Your task to perform on an android device: What's on the menu at Taco Bell? Image 0: 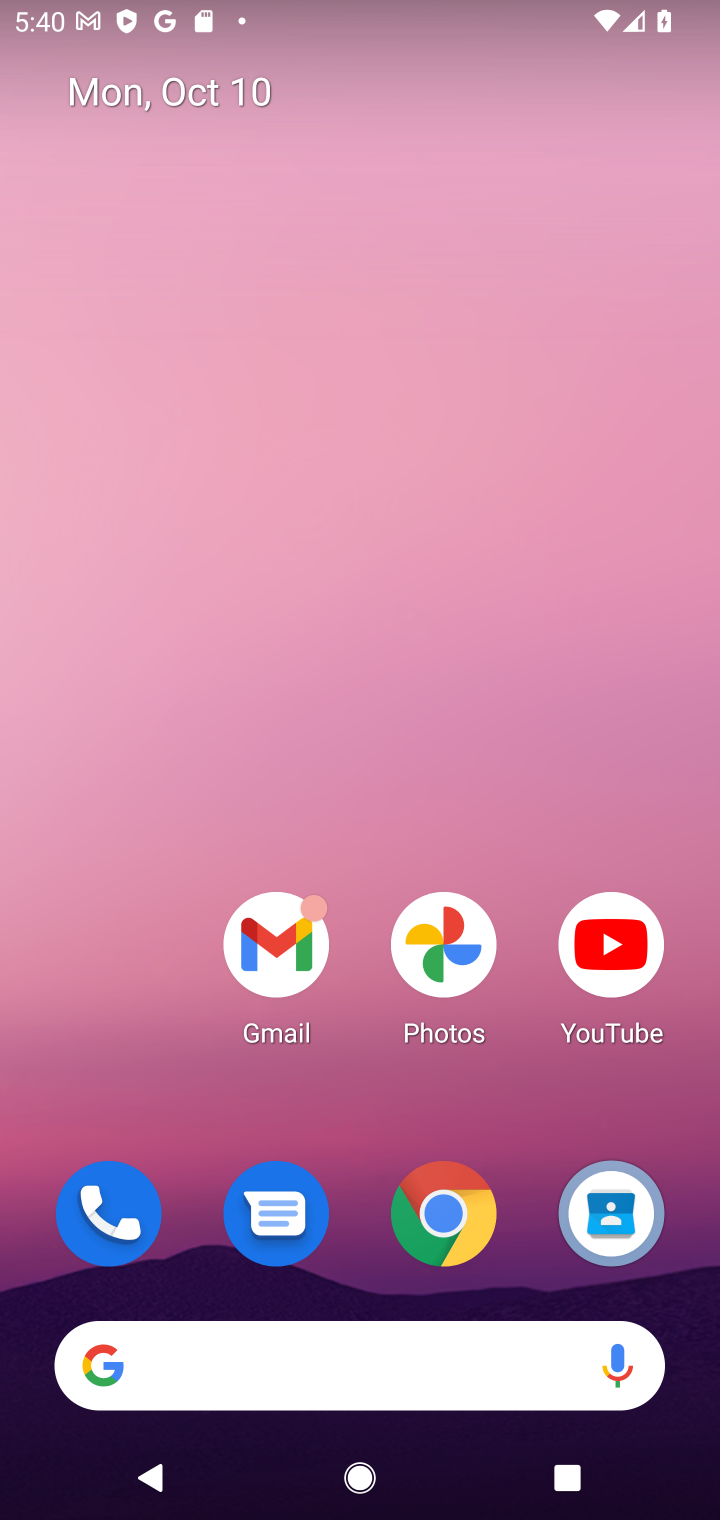
Step 0: click (283, 1338)
Your task to perform on an android device: What's on the menu at Taco Bell? Image 1: 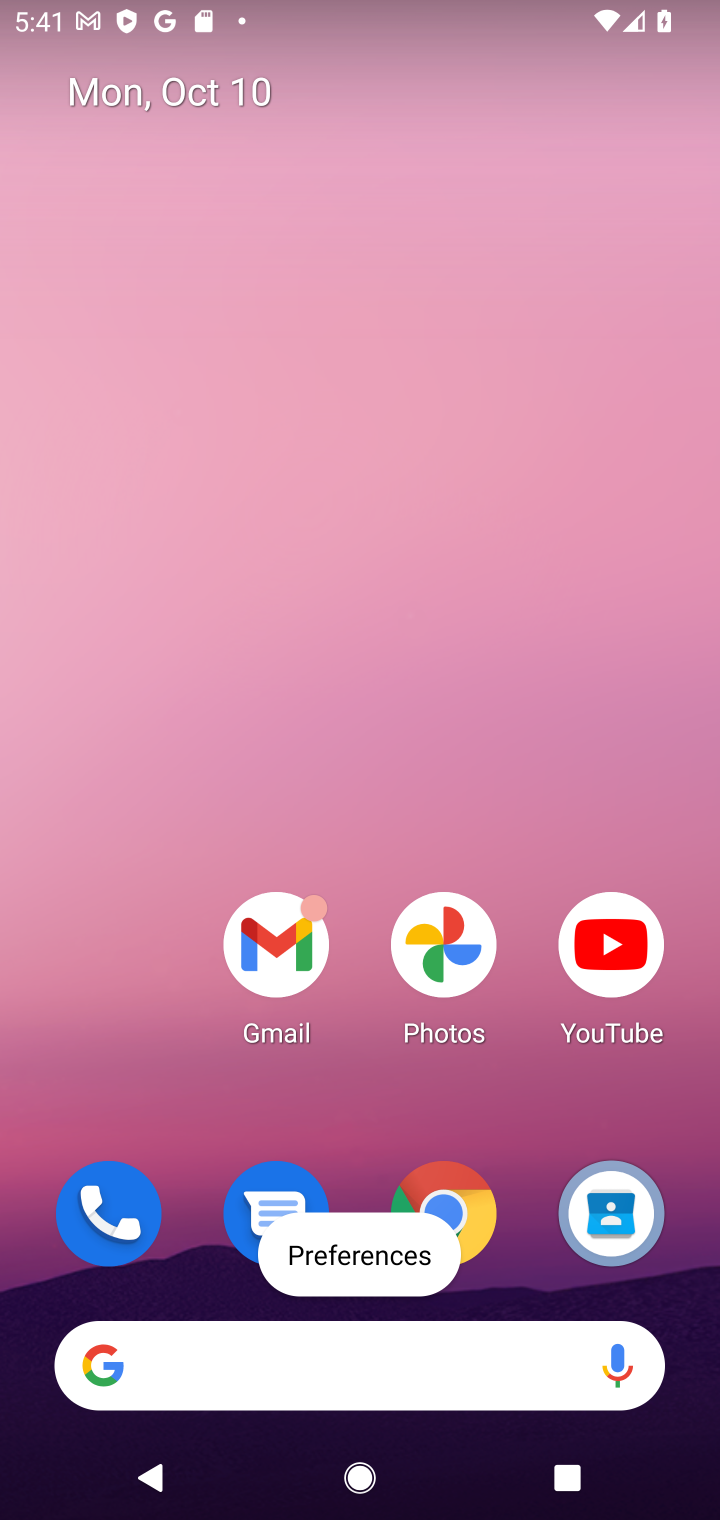
Step 1: click (373, 1394)
Your task to perform on an android device: What's on the menu at Taco Bell? Image 2: 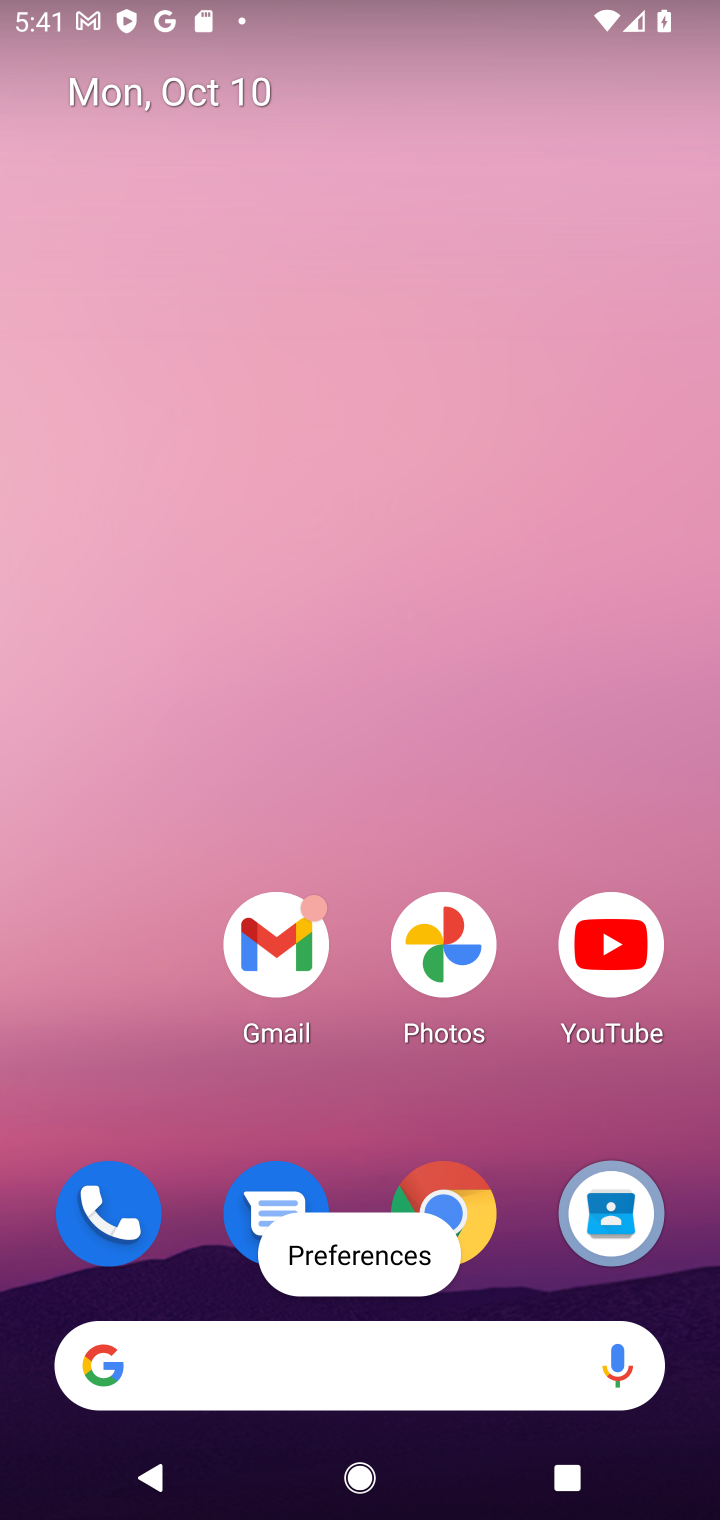
Step 2: click (373, 1341)
Your task to perform on an android device: What's on the menu at Taco Bell? Image 3: 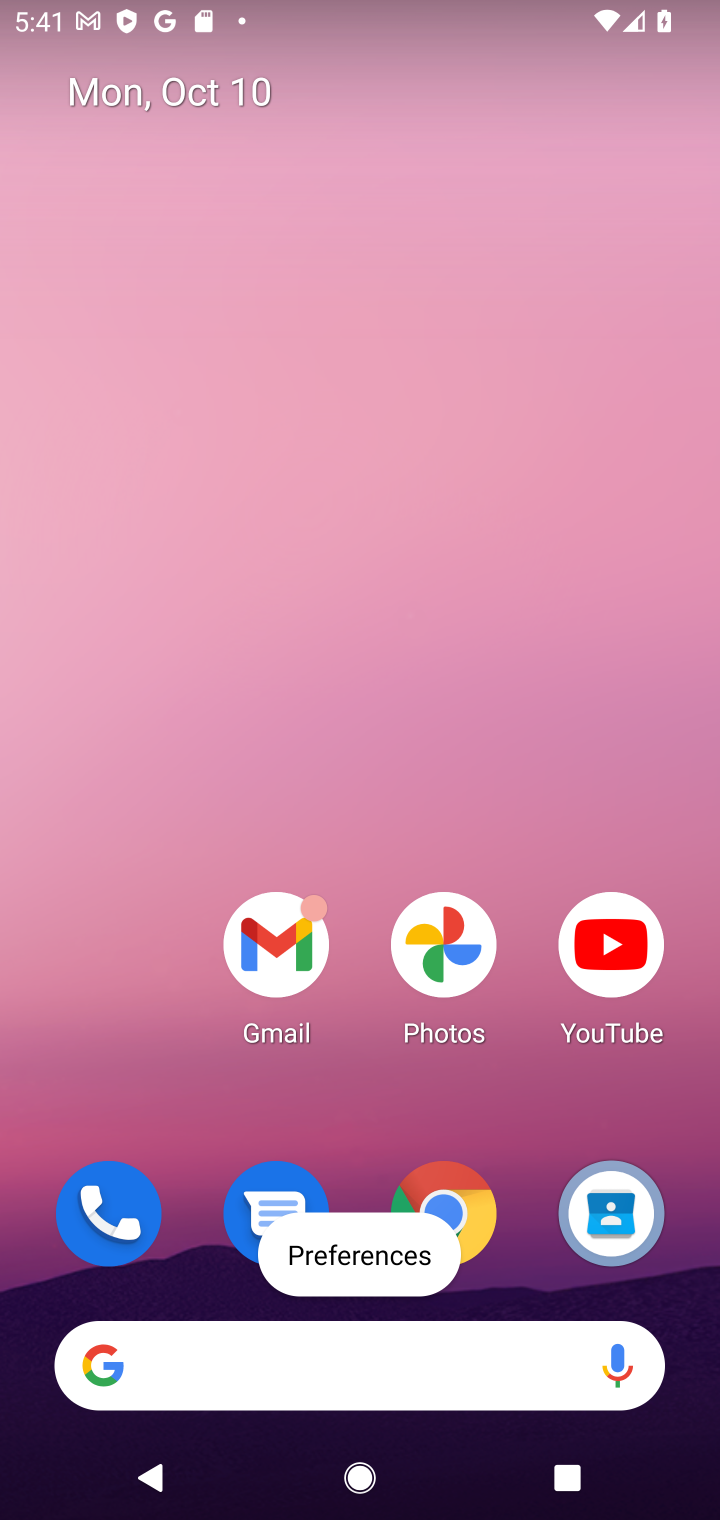
Step 3: click (373, 1341)
Your task to perform on an android device: What's on the menu at Taco Bell? Image 4: 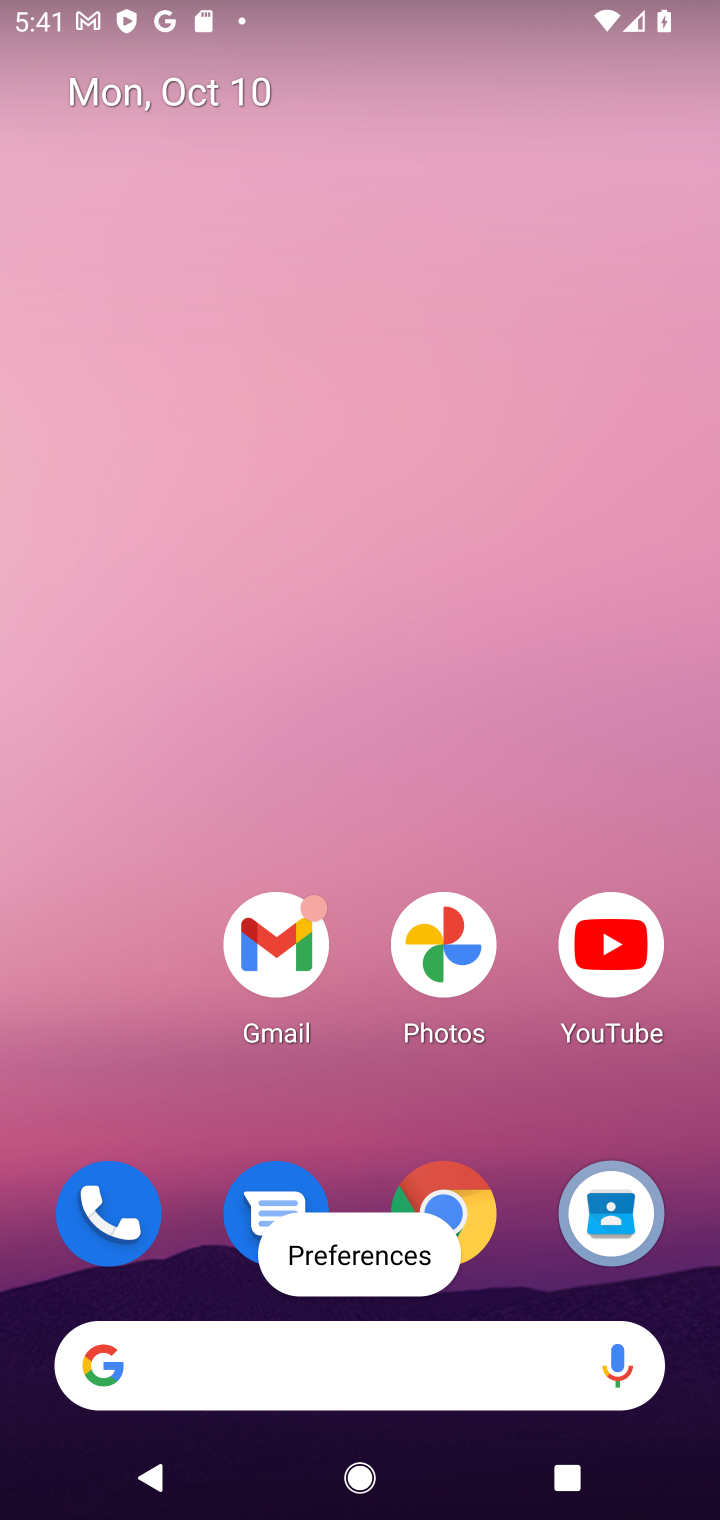
Step 4: click (376, 821)
Your task to perform on an android device: What's on the menu at Taco Bell? Image 5: 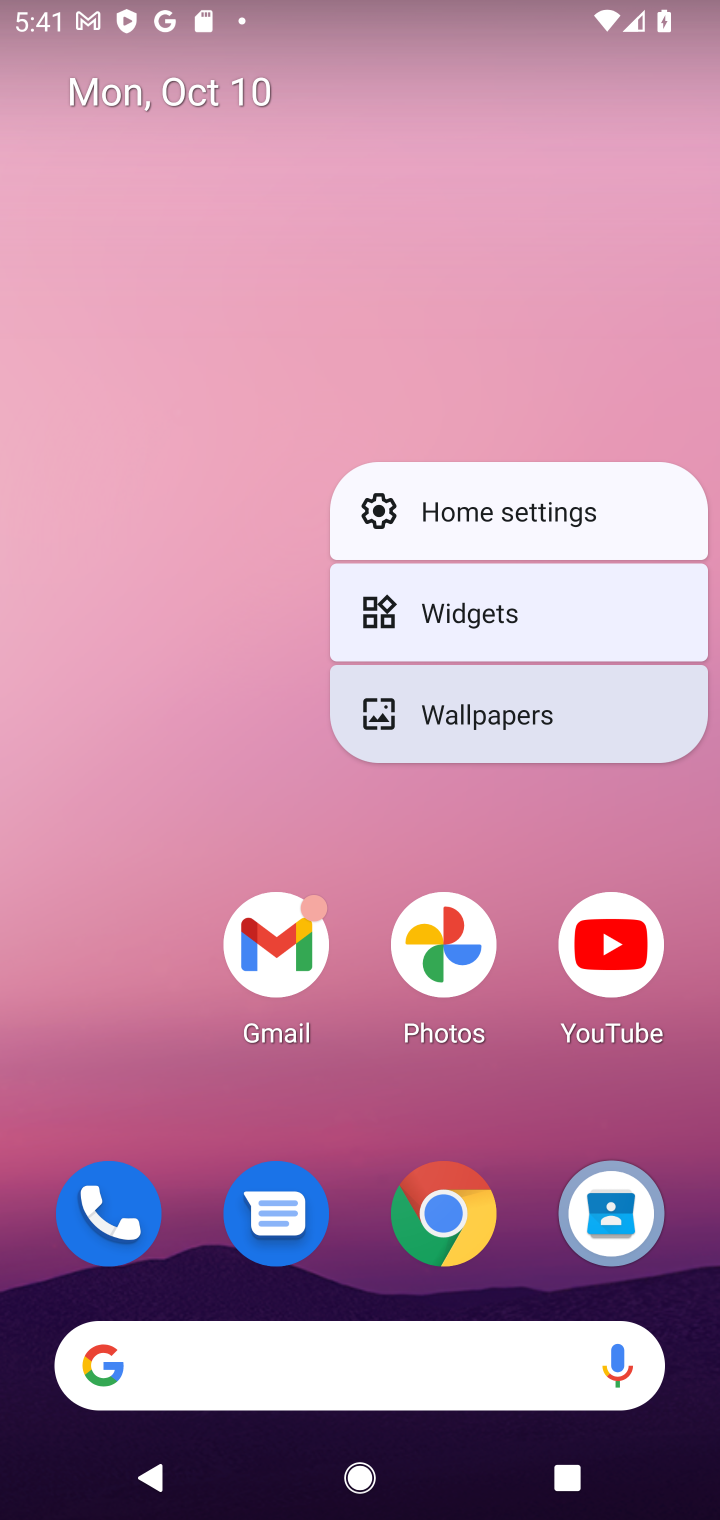
Step 5: click (292, 1360)
Your task to perform on an android device: What's on the menu at Taco Bell? Image 6: 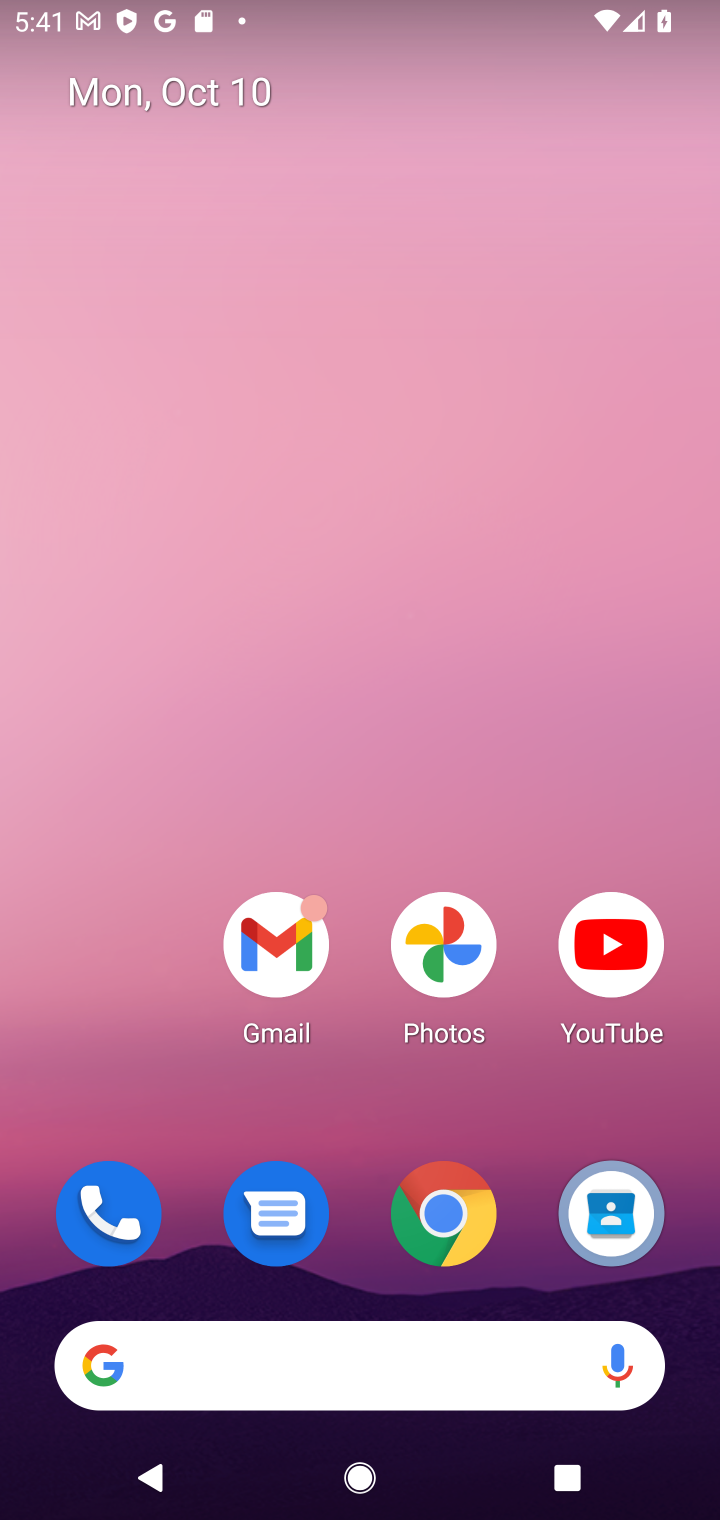
Step 6: click (282, 1368)
Your task to perform on an android device: What's on the menu at Taco Bell? Image 7: 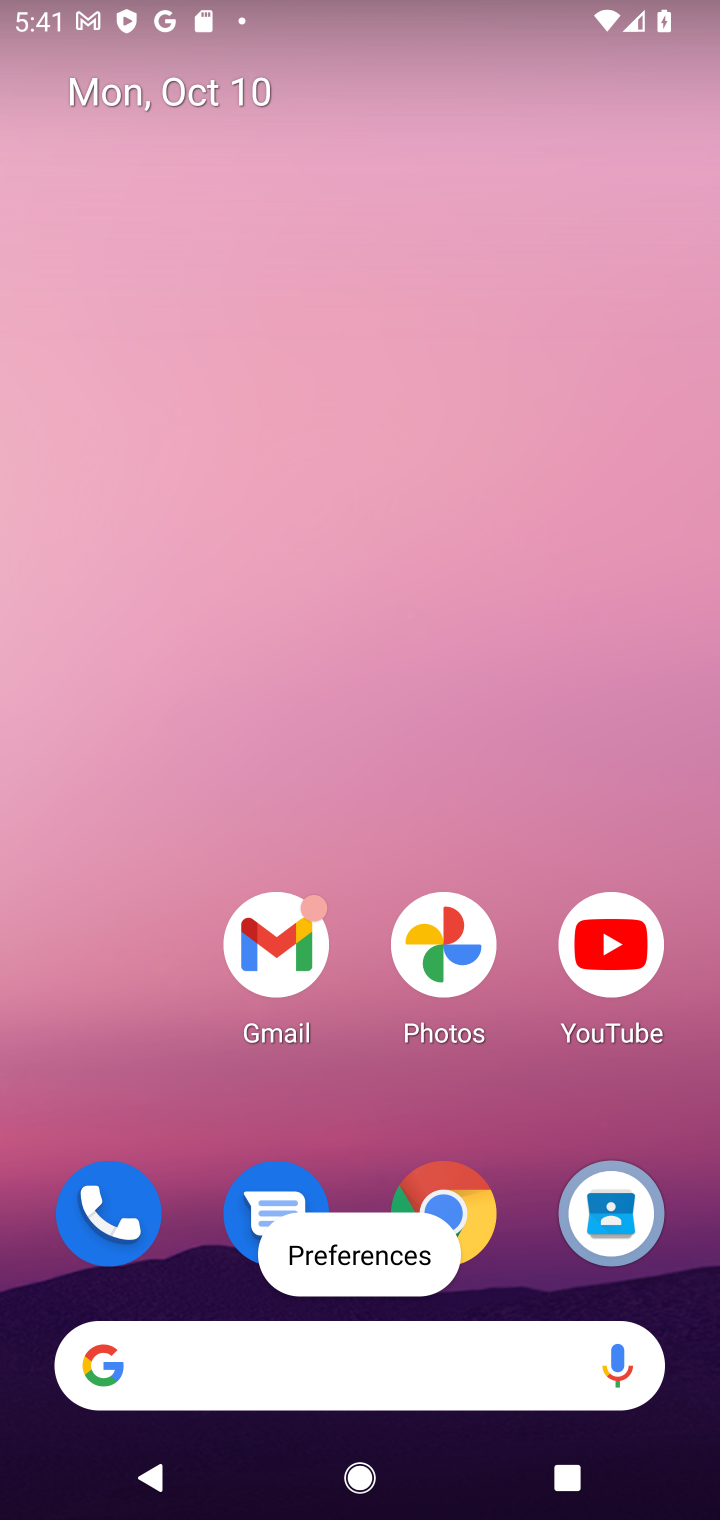
Step 7: click (282, 1368)
Your task to perform on an android device: What's on the menu at Taco Bell? Image 8: 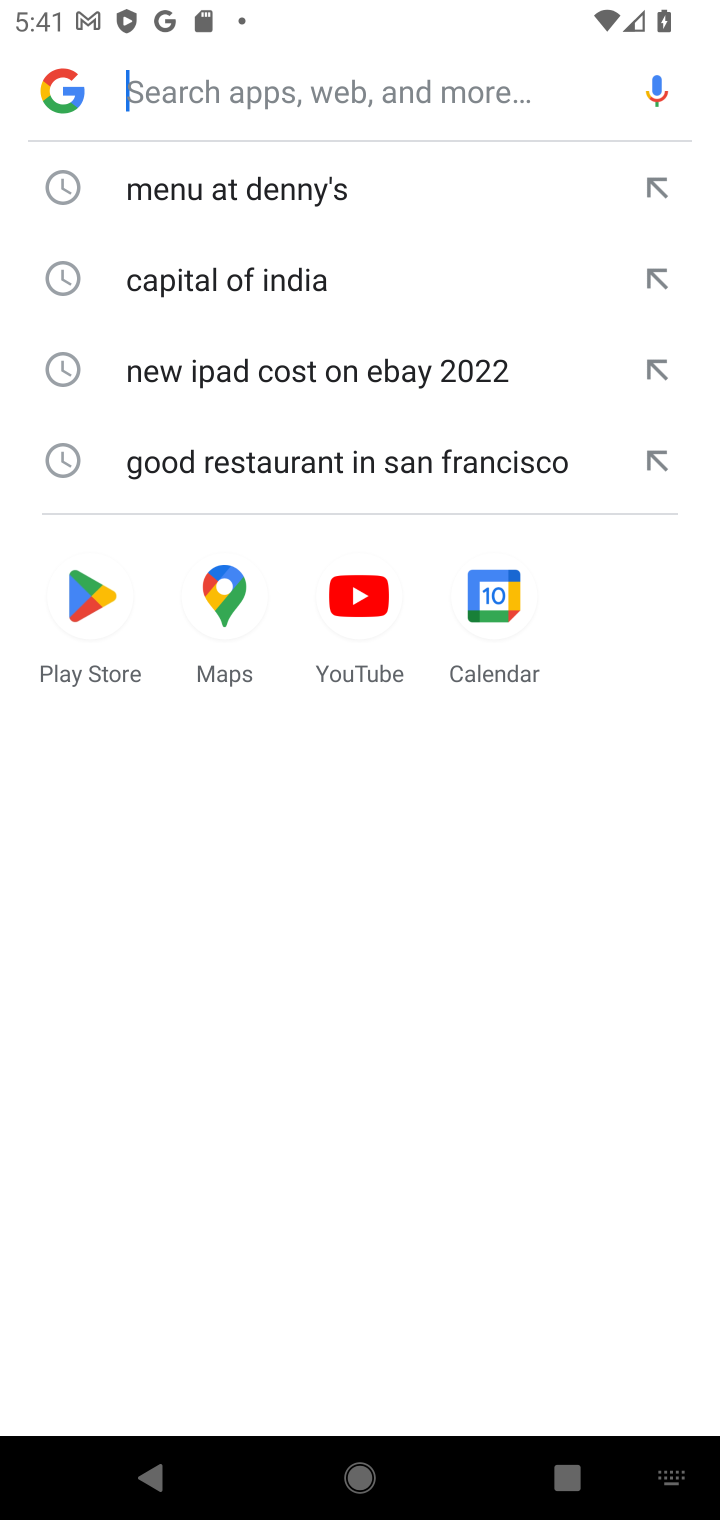
Step 8: type "menu at Taco Bell"
Your task to perform on an android device: What's on the menu at Taco Bell? Image 9: 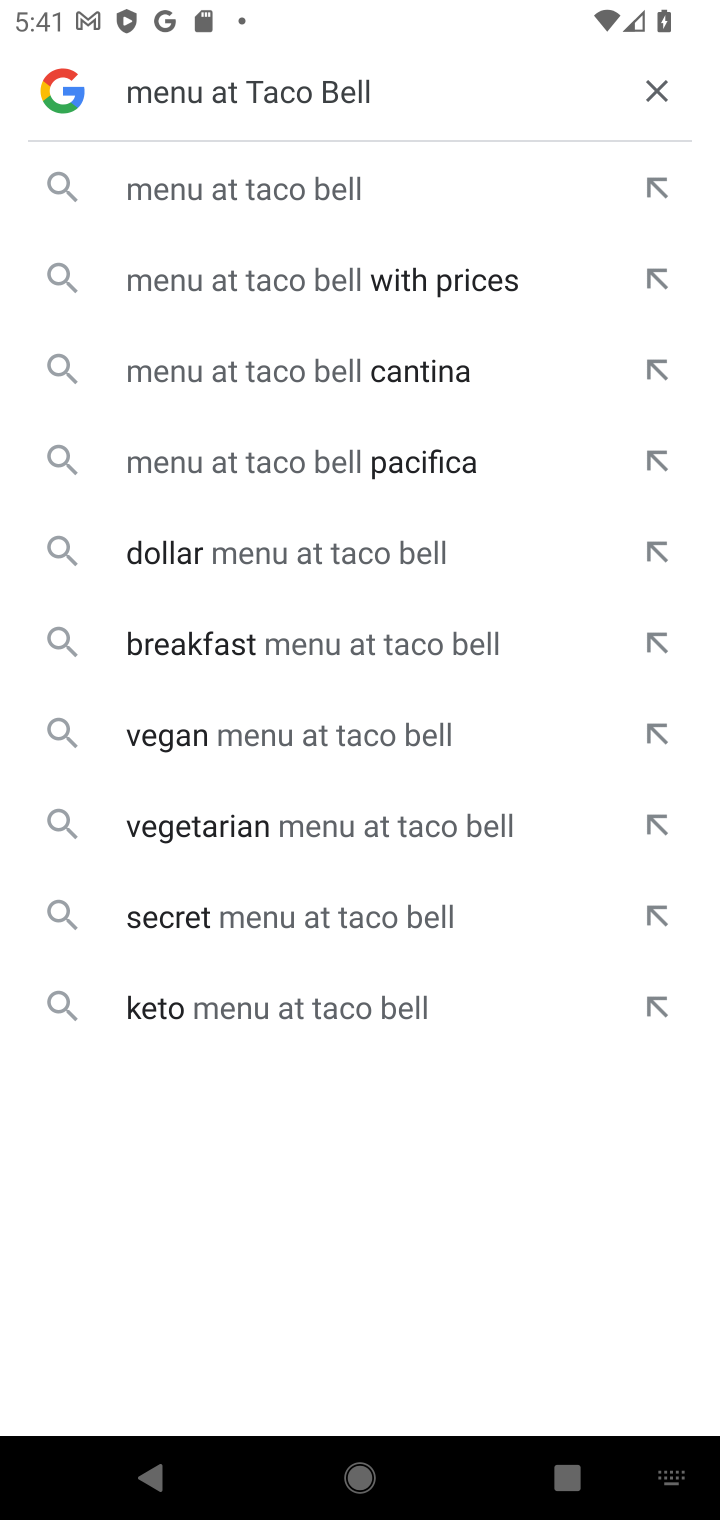
Step 9: click (306, 201)
Your task to perform on an android device: What's on the menu at Taco Bell? Image 10: 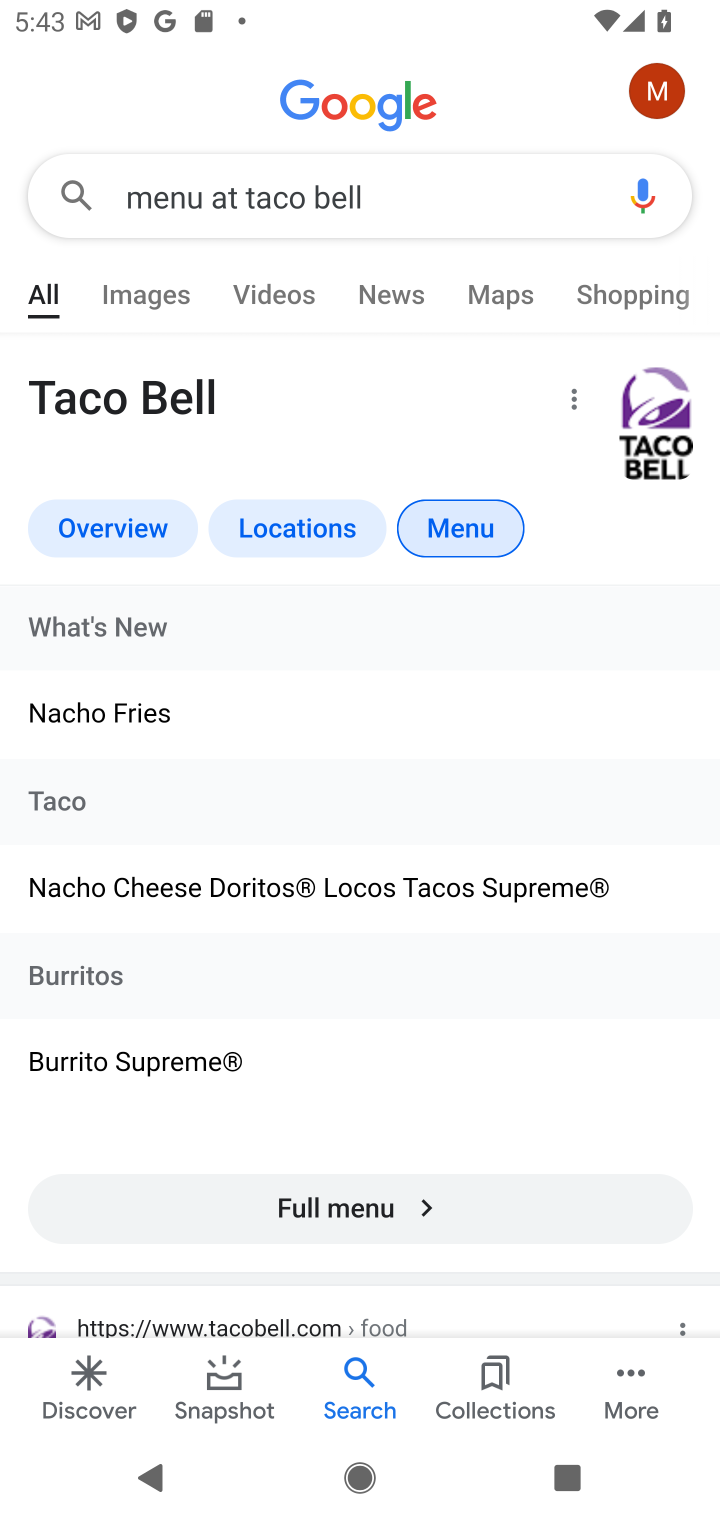
Step 10: task complete